Your task to perform on an android device: Add apple airpods to the cart on walmart, then select checkout. Image 0: 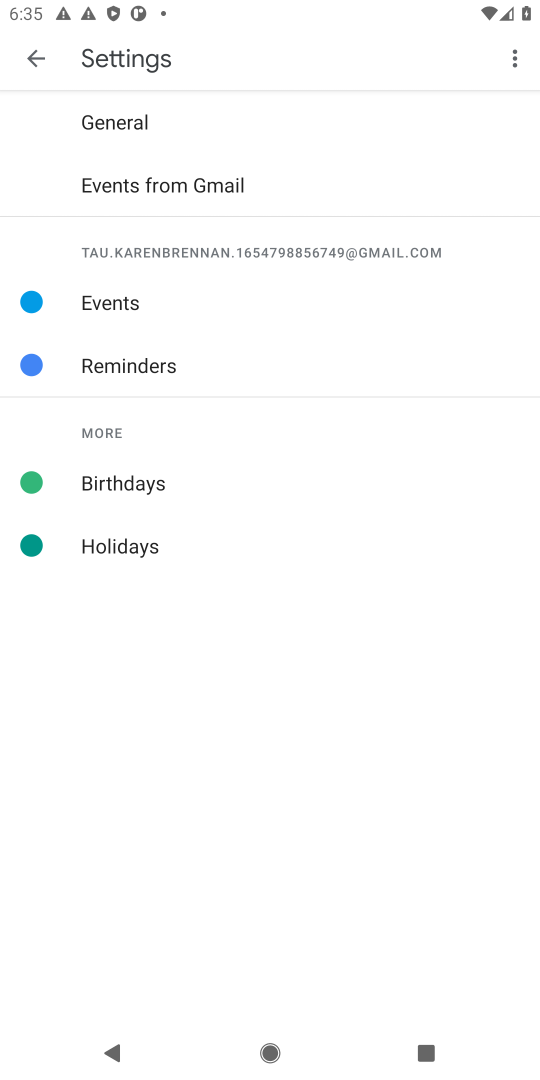
Step 0: press home button
Your task to perform on an android device: Add apple airpods to the cart on walmart, then select checkout. Image 1: 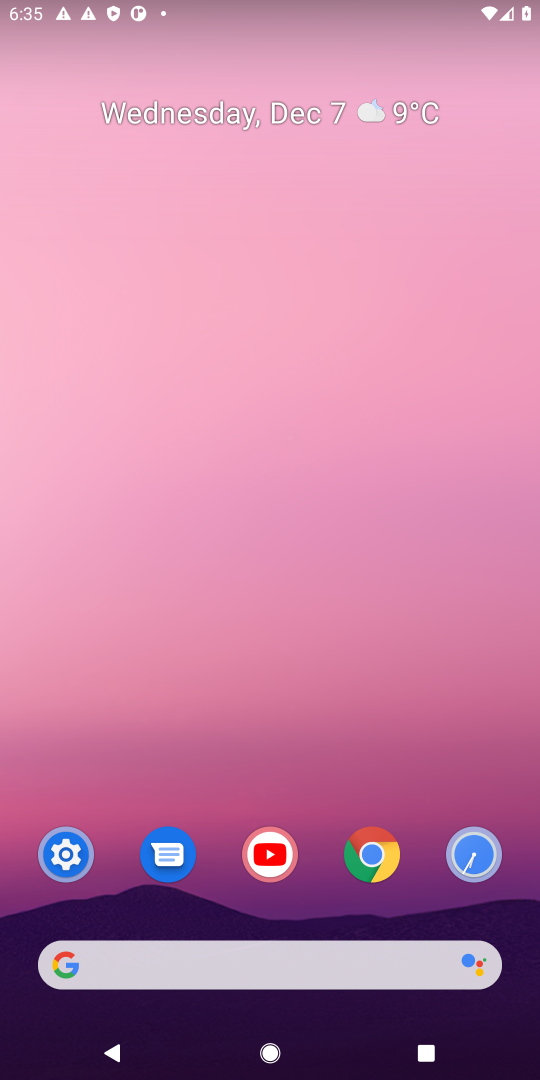
Step 1: click (288, 954)
Your task to perform on an android device: Add apple airpods to the cart on walmart, then select checkout. Image 2: 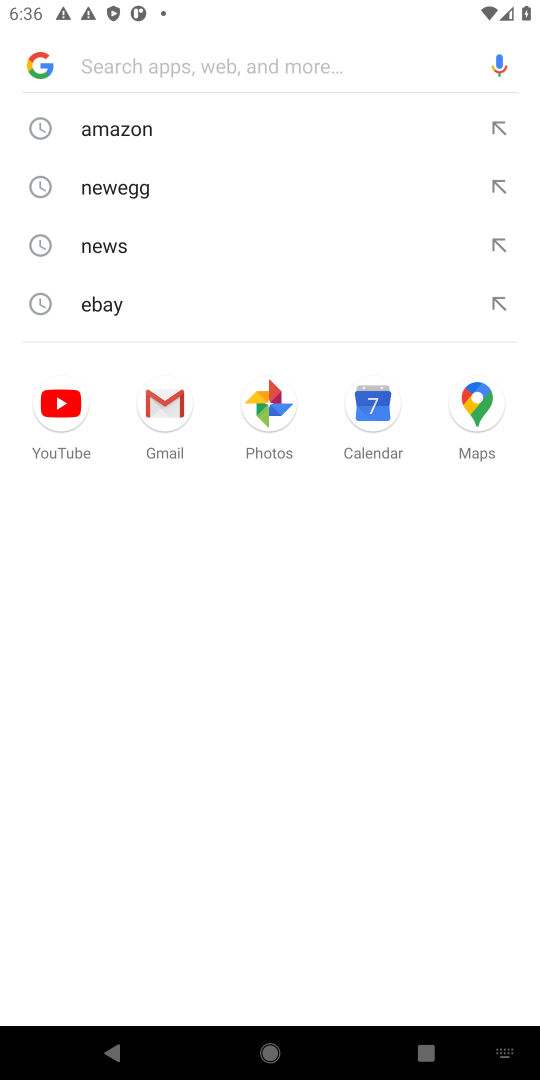
Step 2: type "walmart"
Your task to perform on an android device: Add apple airpods to the cart on walmart, then select checkout. Image 3: 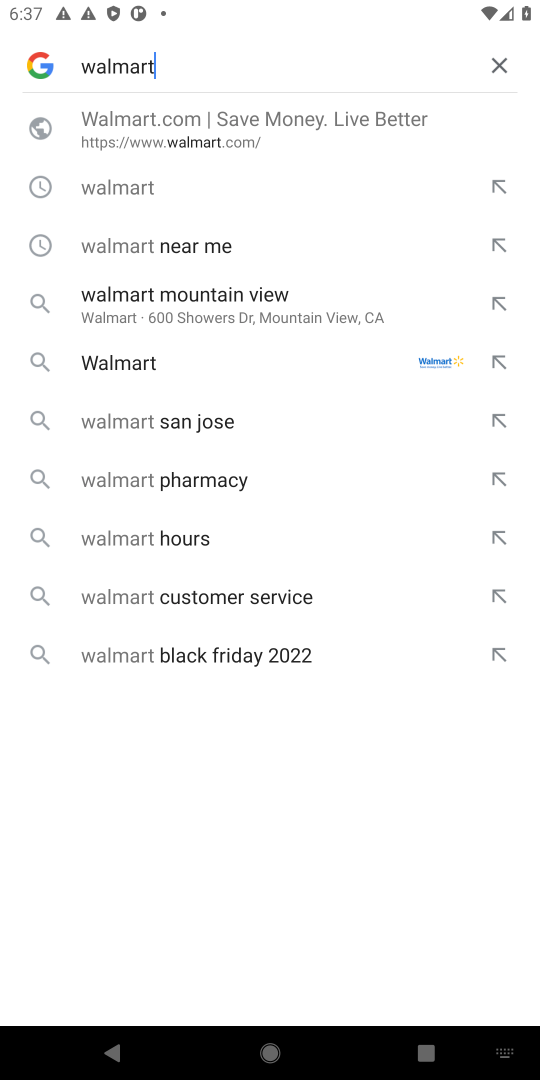
Step 3: click (174, 131)
Your task to perform on an android device: Add apple airpods to the cart on walmart, then select checkout. Image 4: 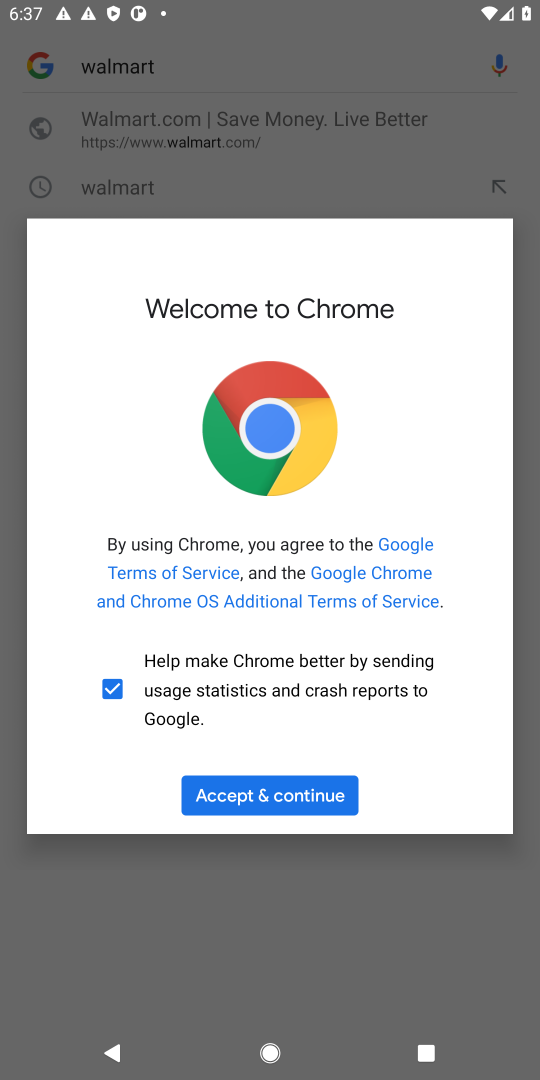
Step 4: click (317, 801)
Your task to perform on an android device: Add apple airpods to the cart on walmart, then select checkout. Image 5: 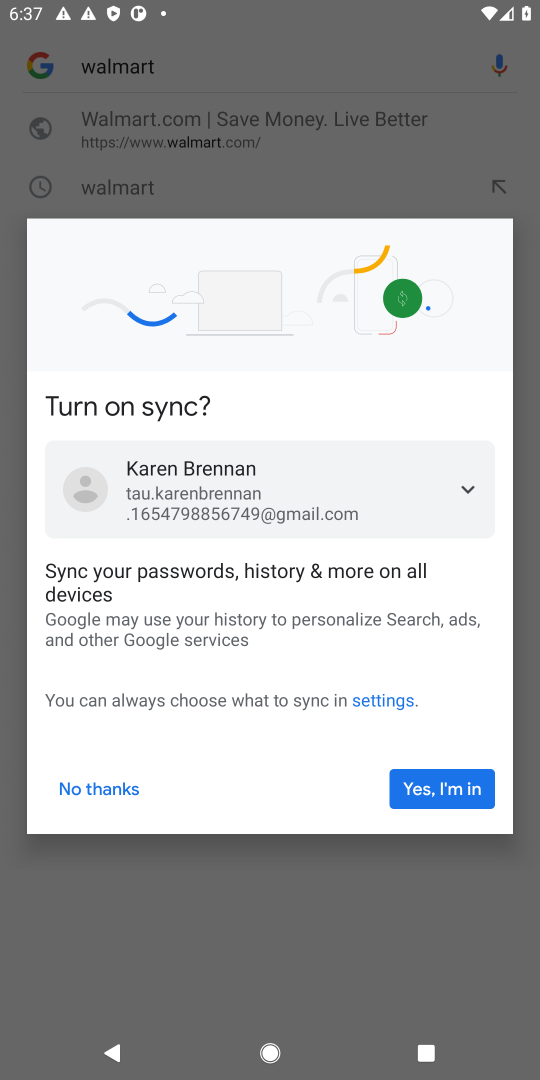
Step 5: click (418, 797)
Your task to perform on an android device: Add apple airpods to the cart on walmart, then select checkout. Image 6: 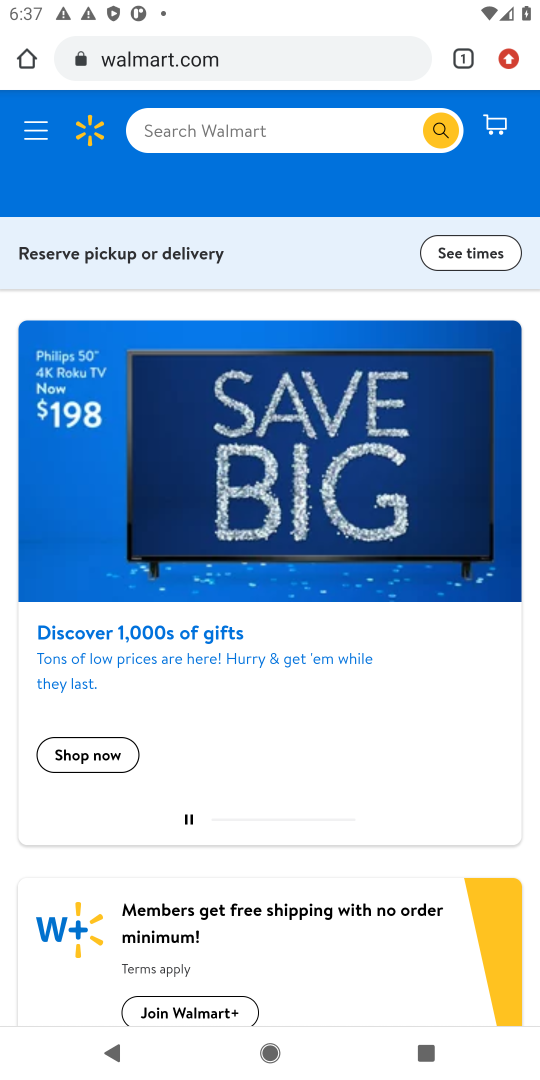
Step 6: task complete